Your task to perform on an android device: turn on bluetooth scan Image 0: 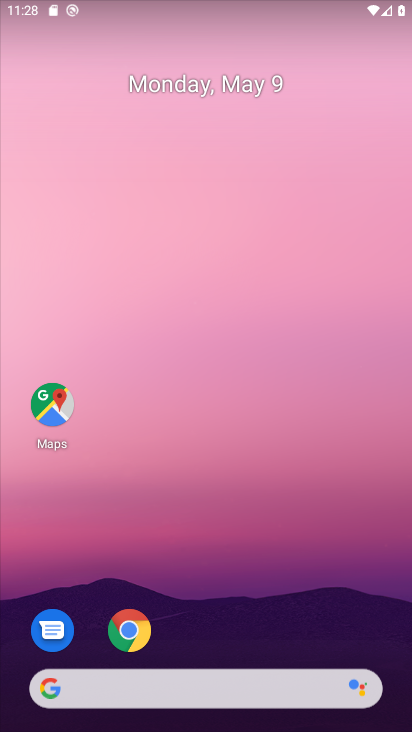
Step 0: drag from (195, 627) to (179, 199)
Your task to perform on an android device: turn on bluetooth scan Image 1: 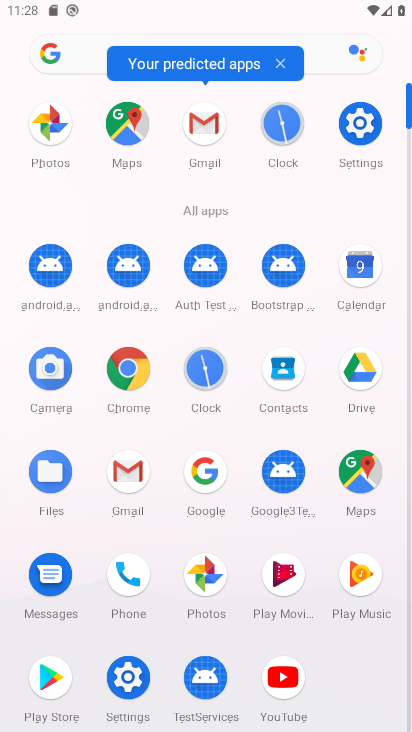
Step 1: click (364, 135)
Your task to perform on an android device: turn on bluetooth scan Image 2: 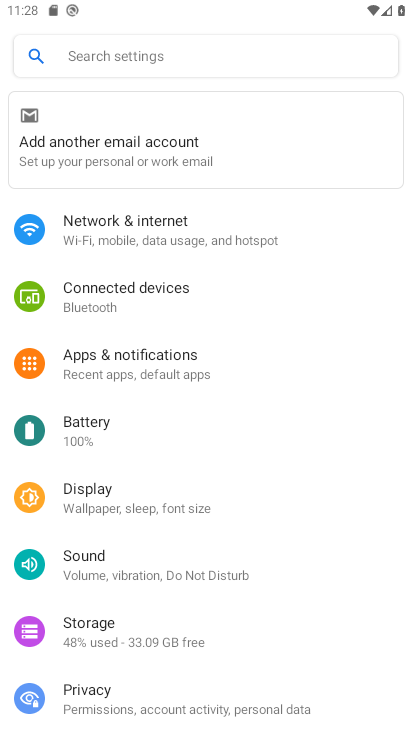
Step 2: drag from (179, 657) to (149, 320)
Your task to perform on an android device: turn on bluetooth scan Image 3: 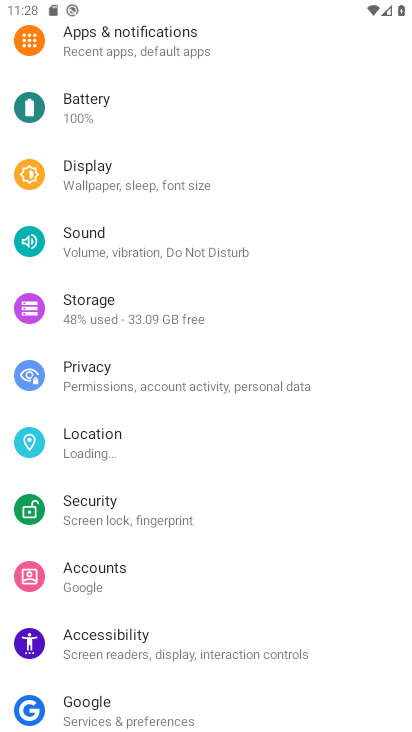
Step 3: click (75, 446)
Your task to perform on an android device: turn on bluetooth scan Image 4: 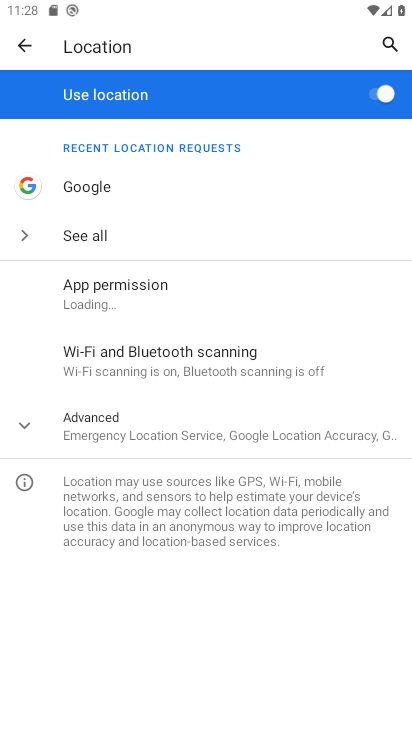
Step 4: click (172, 349)
Your task to perform on an android device: turn on bluetooth scan Image 5: 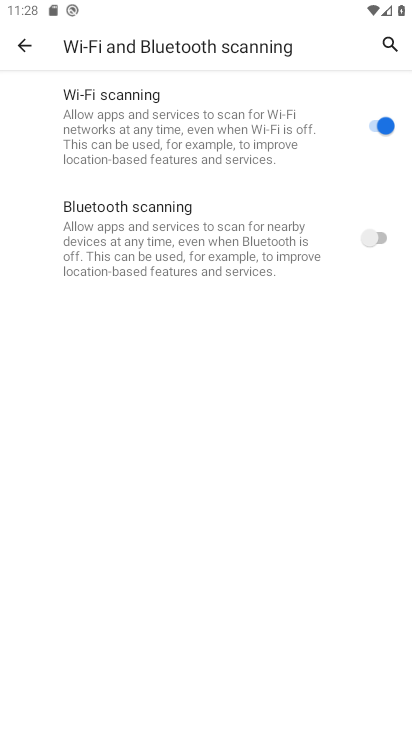
Step 5: click (378, 233)
Your task to perform on an android device: turn on bluetooth scan Image 6: 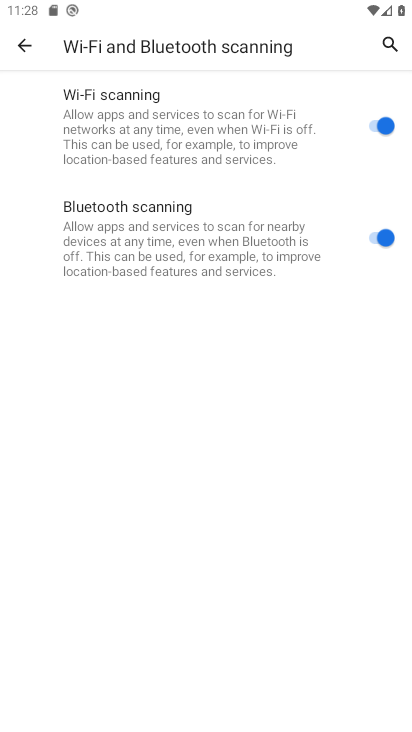
Step 6: task complete